Your task to perform on an android device: toggle sleep mode Image 0: 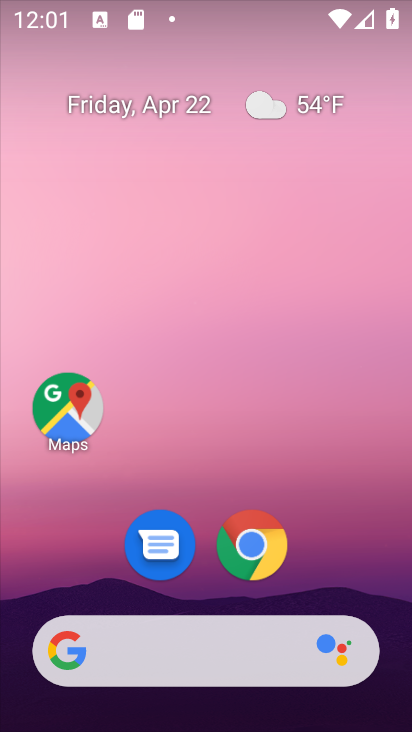
Step 0: drag from (243, 603) to (291, 231)
Your task to perform on an android device: toggle sleep mode Image 1: 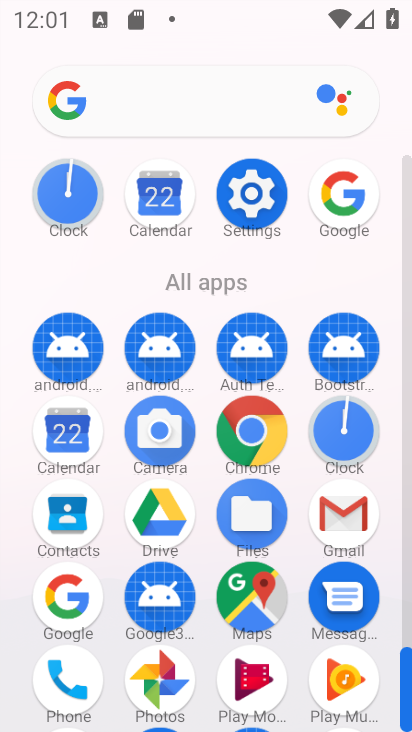
Step 1: click (257, 205)
Your task to perform on an android device: toggle sleep mode Image 2: 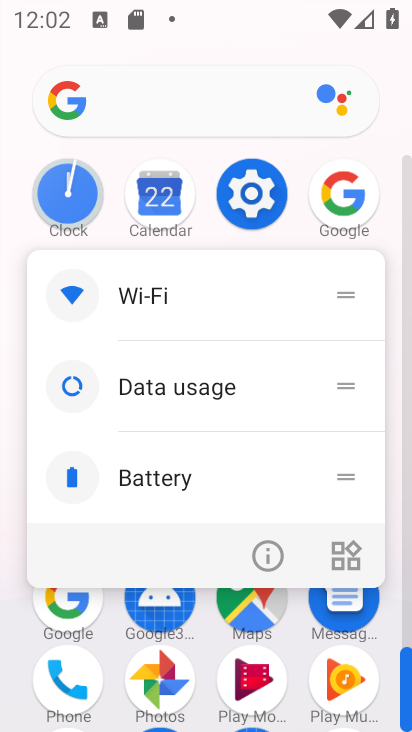
Step 2: click (263, 556)
Your task to perform on an android device: toggle sleep mode Image 3: 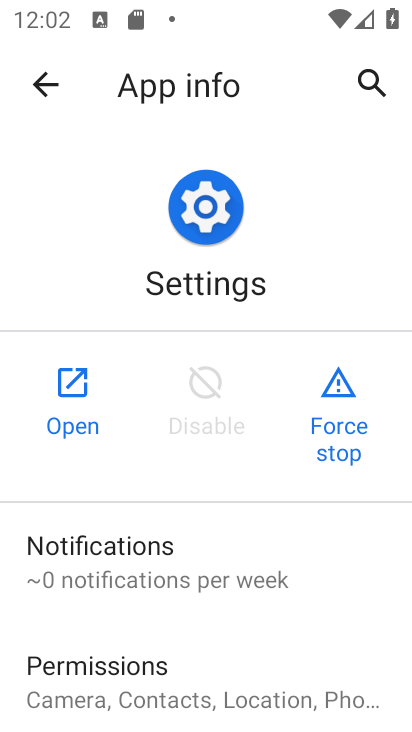
Step 3: task complete